Your task to perform on an android device: visit the assistant section in the google photos Image 0: 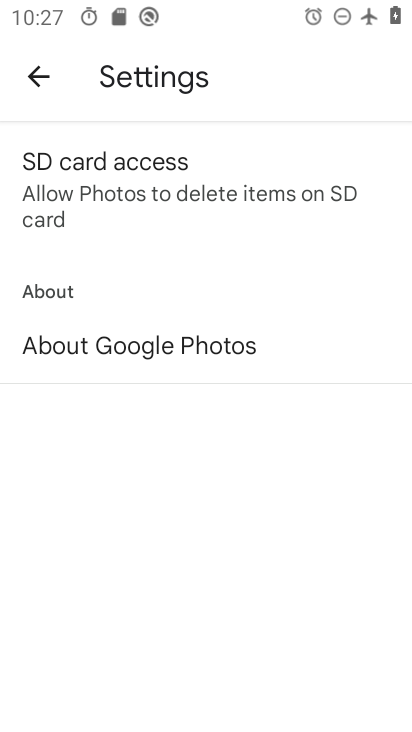
Step 0: press home button
Your task to perform on an android device: visit the assistant section in the google photos Image 1: 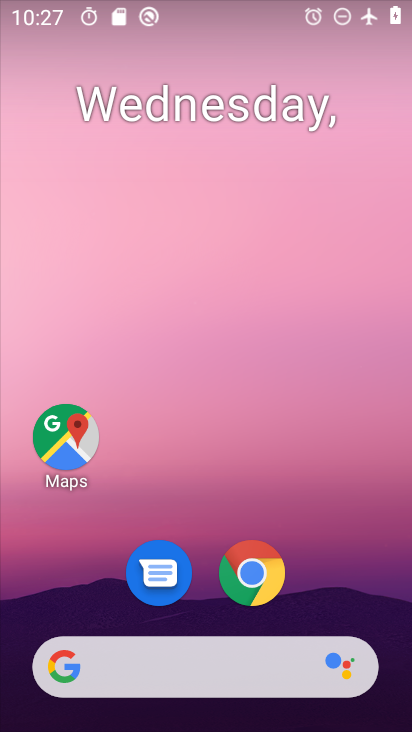
Step 1: drag from (318, 597) to (288, 216)
Your task to perform on an android device: visit the assistant section in the google photos Image 2: 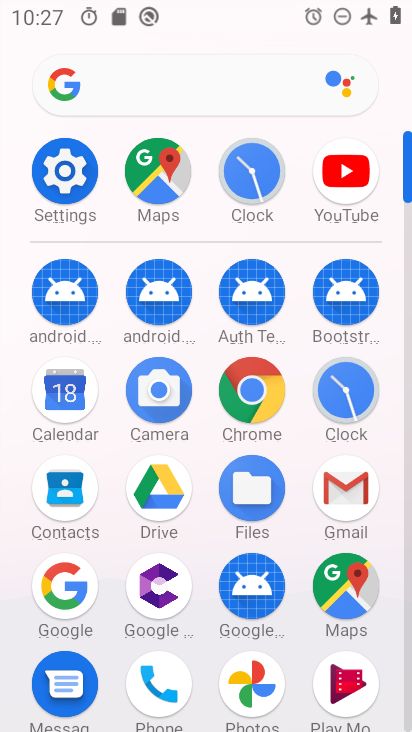
Step 2: click (252, 709)
Your task to perform on an android device: visit the assistant section in the google photos Image 3: 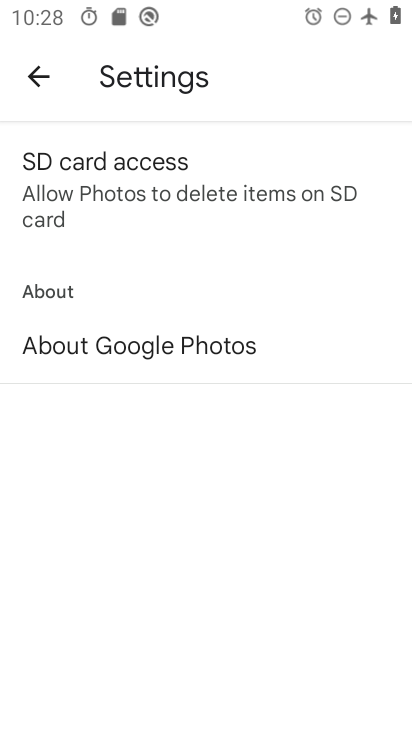
Step 3: click (45, 91)
Your task to perform on an android device: visit the assistant section in the google photos Image 4: 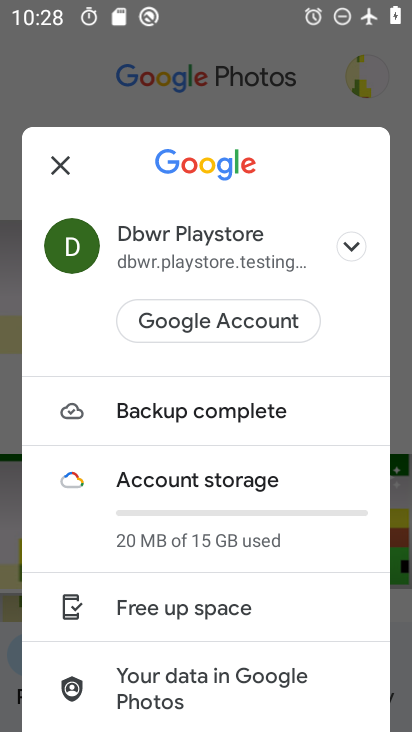
Step 4: task complete